Your task to perform on an android device: turn pop-ups on in chrome Image 0: 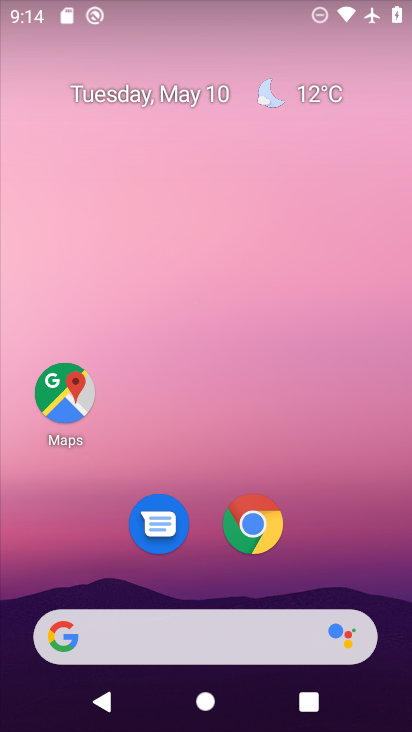
Step 0: click (268, 527)
Your task to perform on an android device: turn pop-ups on in chrome Image 1: 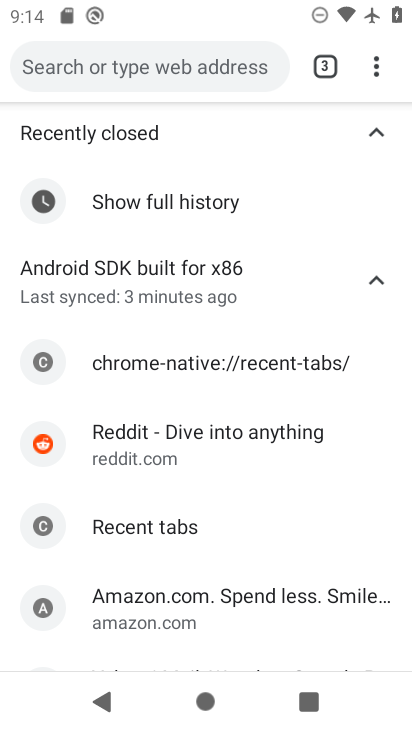
Step 1: click (374, 60)
Your task to perform on an android device: turn pop-ups on in chrome Image 2: 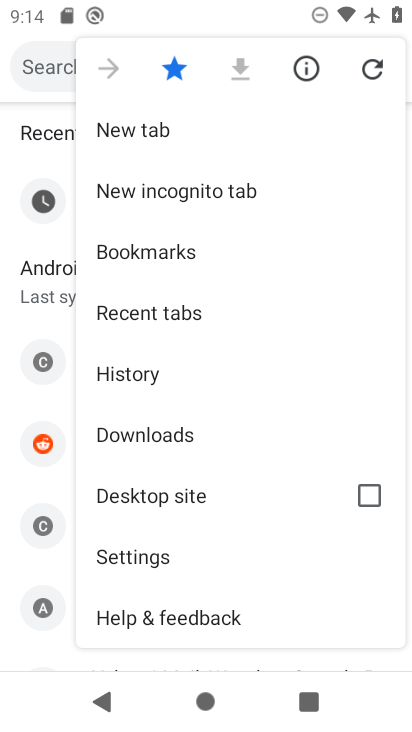
Step 2: click (183, 555)
Your task to perform on an android device: turn pop-ups on in chrome Image 3: 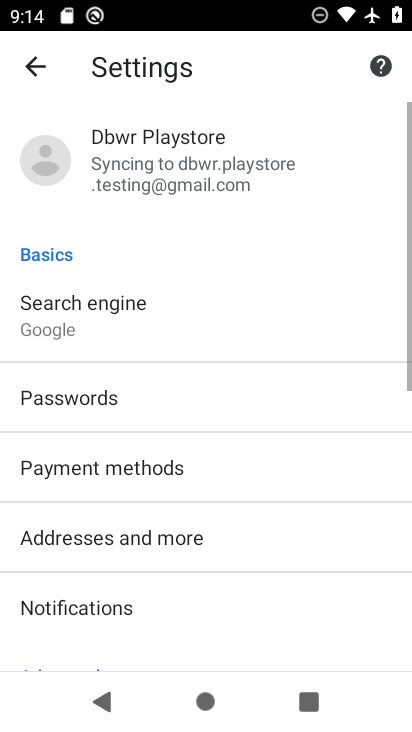
Step 3: drag from (211, 511) to (225, 187)
Your task to perform on an android device: turn pop-ups on in chrome Image 4: 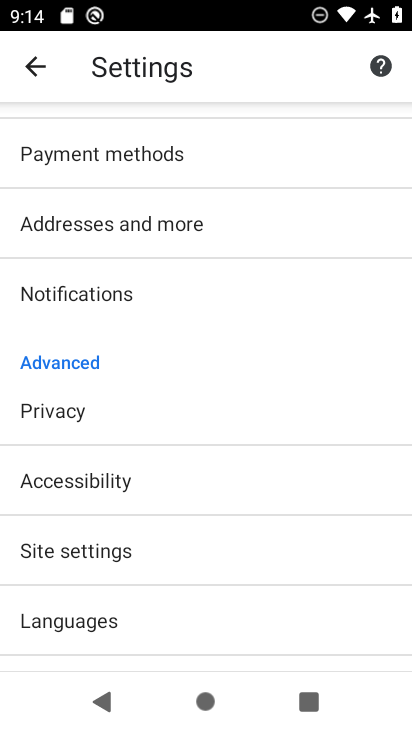
Step 4: click (127, 544)
Your task to perform on an android device: turn pop-ups on in chrome Image 5: 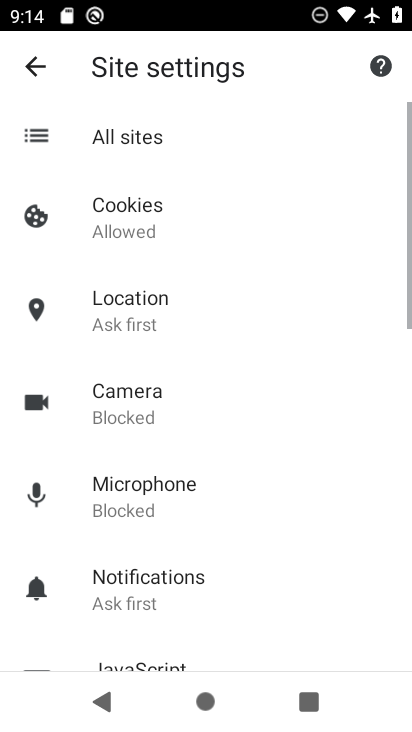
Step 5: drag from (253, 525) to (257, 114)
Your task to perform on an android device: turn pop-ups on in chrome Image 6: 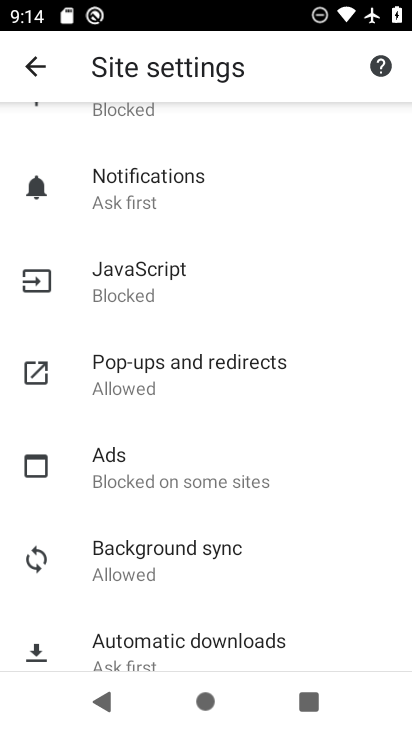
Step 6: click (233, 372)
Your task to perform on an android device: turn pop-ups on in chrome Image 7: 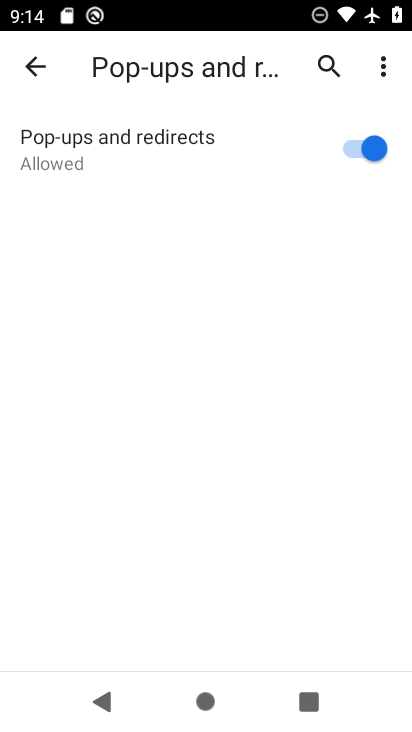
Step 7: task complete